Your task to perform on an android device: turn on showing notifications on the lock screen Image 0: 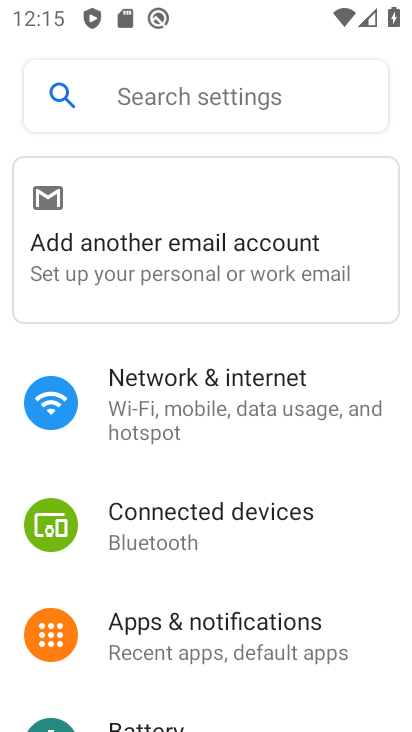
Step 0: drag from (268, 702) to (289, 461)
Your task to perform on an android device: turn on showing notifications on the lock screen Image 1: 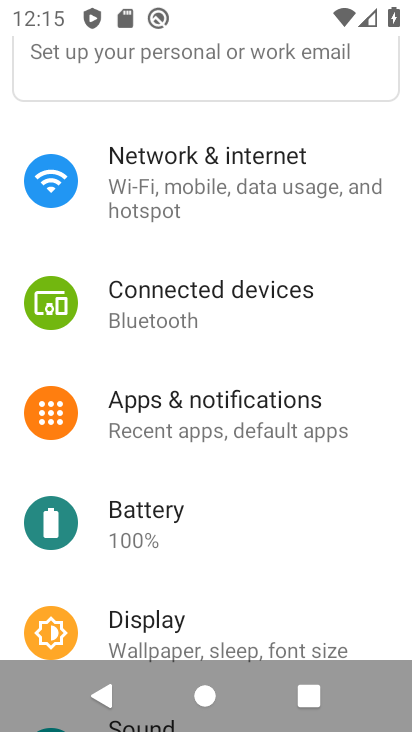
Step 1: click (259, 429)
Your task to perform on an android device: turn on showing notifications on the lock screen Image 2: 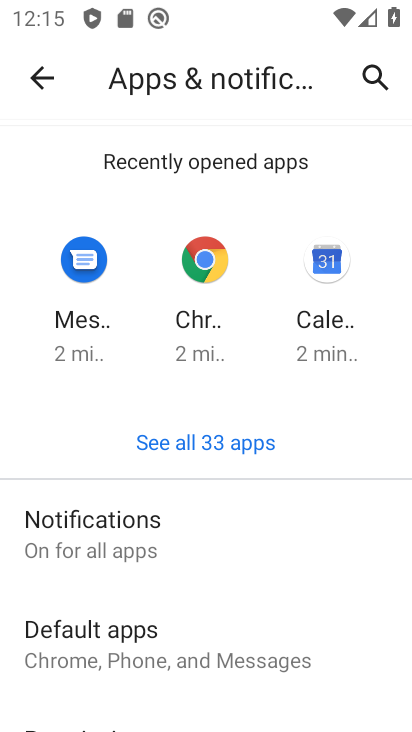
Step 2: click (137, 553)
Your task to perform on an android device: turn on showing notifications on the lock screen Image 3: 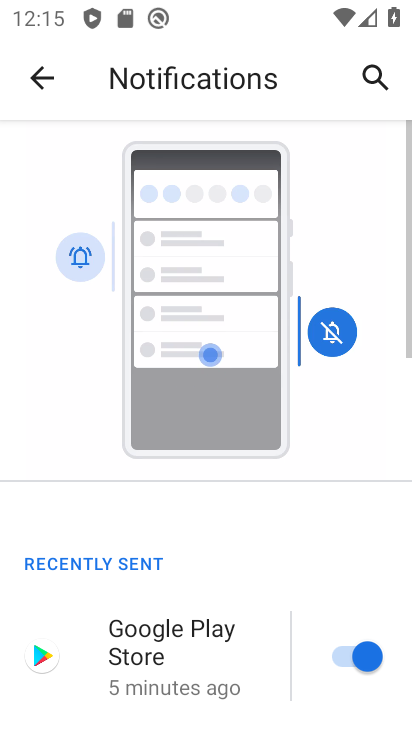
Step 3: drag from (213, 613) to (295, 114)
Your task to perform on an android device: turn on showing notifications on the lock screen Image 4: 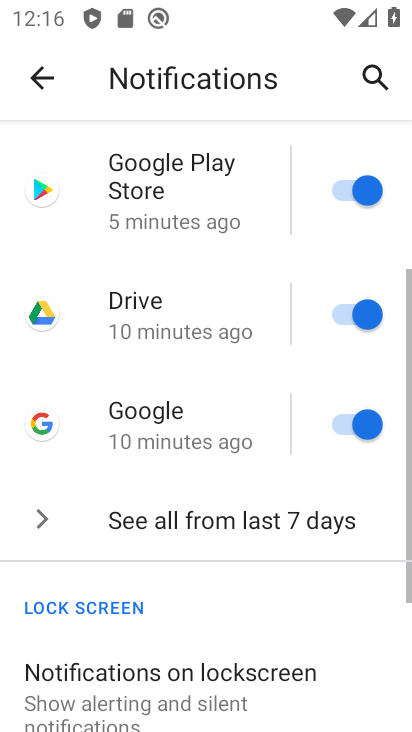
Step 4: drag from (228, 686) to (265, 440)
Your task to perform on an android device: turn on showing notifications on the lock screen Image 5: 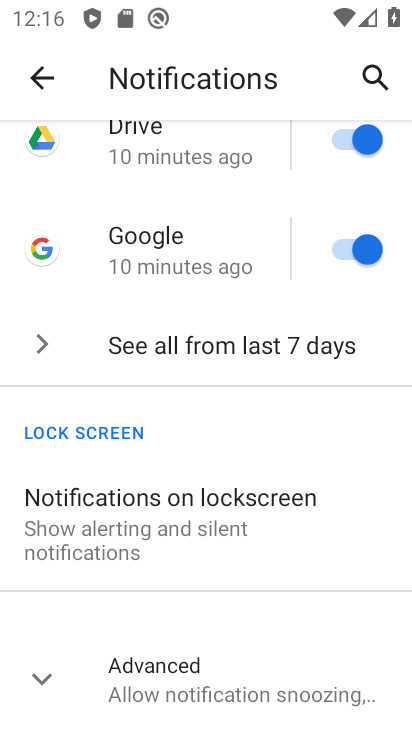
Step 5: click (153, 525)
Your task to perform on an android device: turn on showing notifications on the lock screen Image 6: 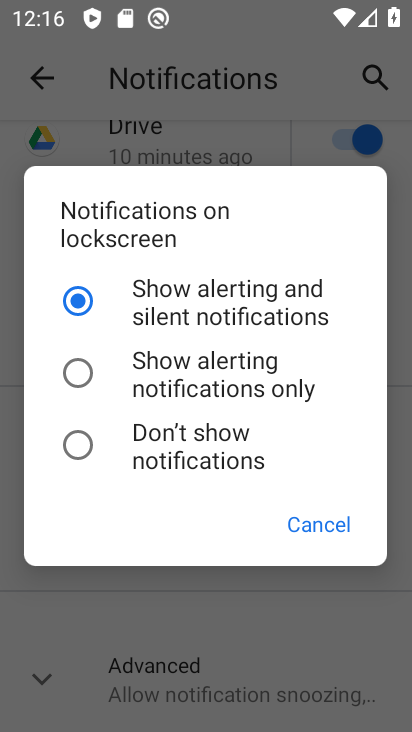
Step 6: click (169, 379)
Your task to perform on an android device: turn on showing notifications on the lock screen Image 7: 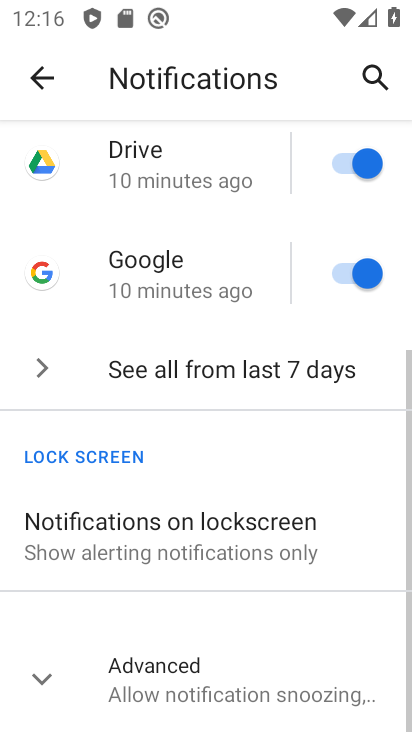
Step 7: task complete